Your task to perform on an android device: Open Maps and search for coffee Image 0: 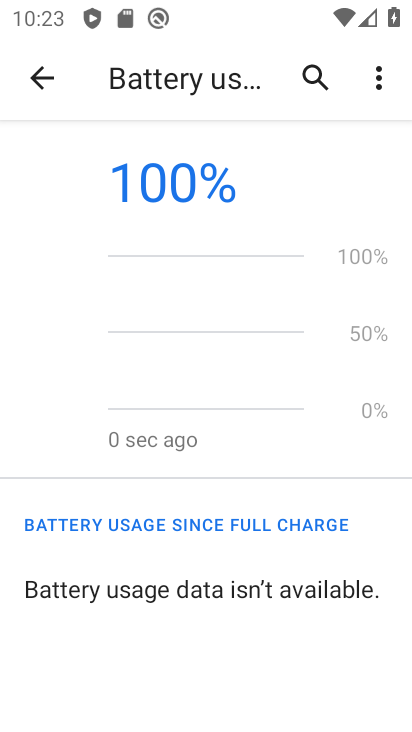
Step 0: press home button
Your task to perform on an android device: Open Maps and search for coffee Image 1: 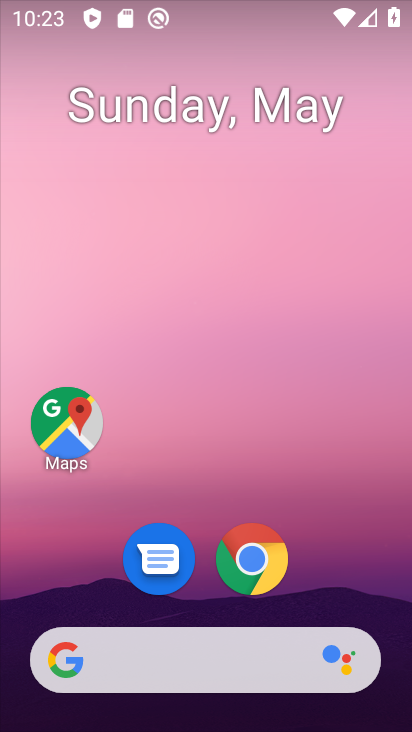
Step 1: click (80, 445)
Your task to perform on an android device: Open Maps and search for coffee Image 2: 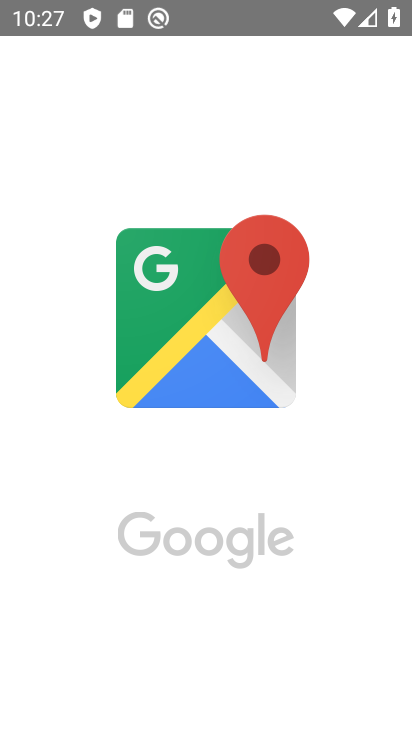
Step 2: task complete